Your task to perform on an android device: toggle translation in the chrome app Image 0: 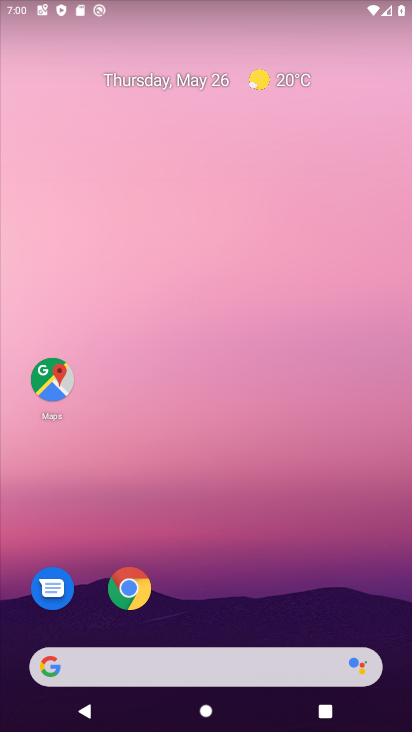
Step 0: drag from (355, 610) to (299, 75)
Your task to perform on an android device: toggle translation in the chrome app Image 1: 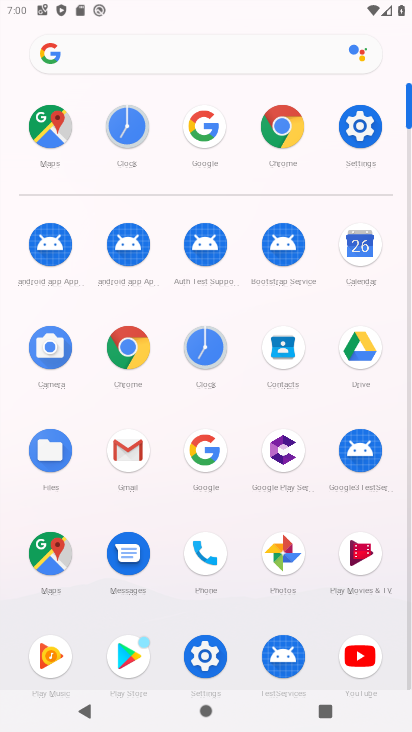
Step 1: click (288, 133)
Your task to perform on an android device: toggle translation in the chrome app Image 2: 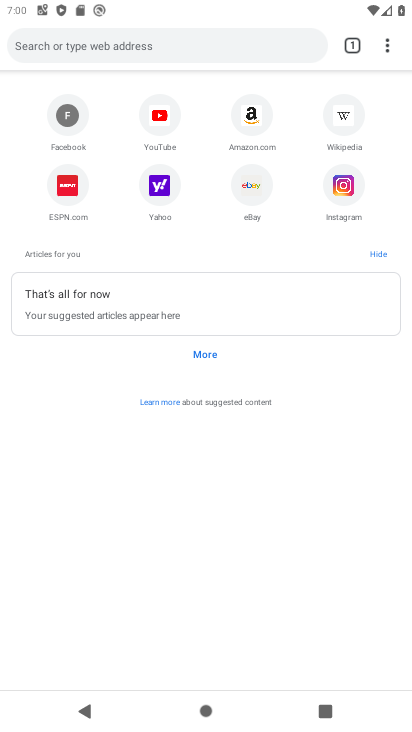
Step 2: click (388, 37)
Your task to perform on an android device: toggle translation in the chrome app Image 3: 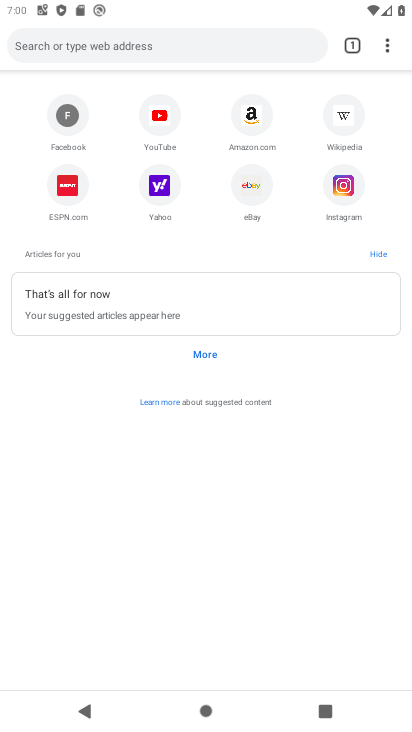
Step 3: click (388, 37)
Your task to perform on an android device: toggle translation in the chrome app Image 4: 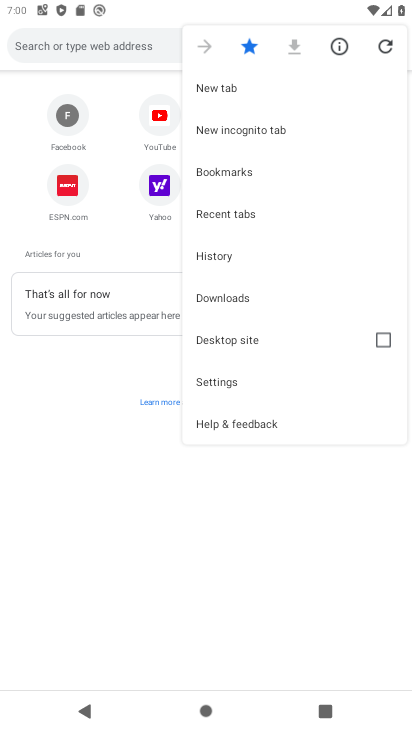
Step 4: click (252, 383)
Your task to perform on an android device: toggle translation in the chrome app Image 5: 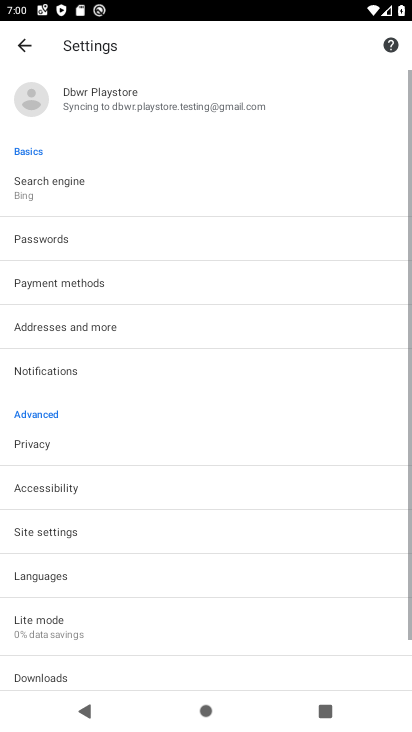
Step 5: click (91, 595)
Your task to perform on an android device: toggle translation in the chrome app Image 6: 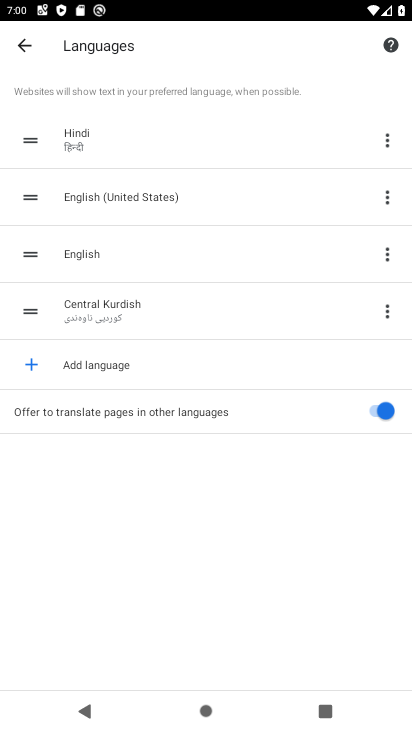
Step 6: click (354, 405)
Your task to perform on an android device: toggle translation in the chrome app Image 7: 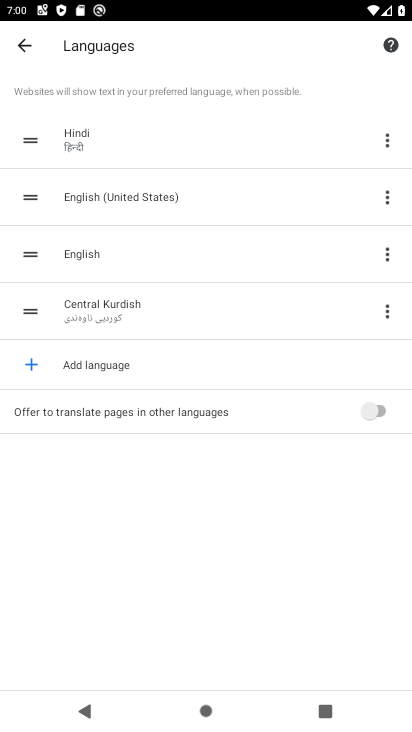
Step 7: task complete